Your task to perform on an android device: turn on the 12-hour format for clock Image 0: 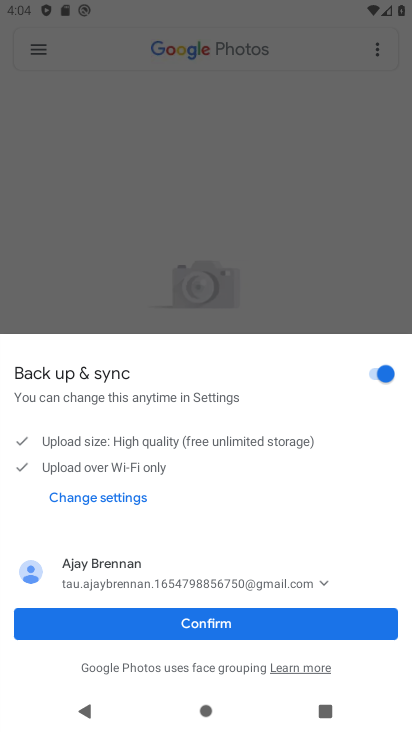
Step 0: press home button
Your task to perform on an android device: turn on the 12-hour format for clock Image 1: 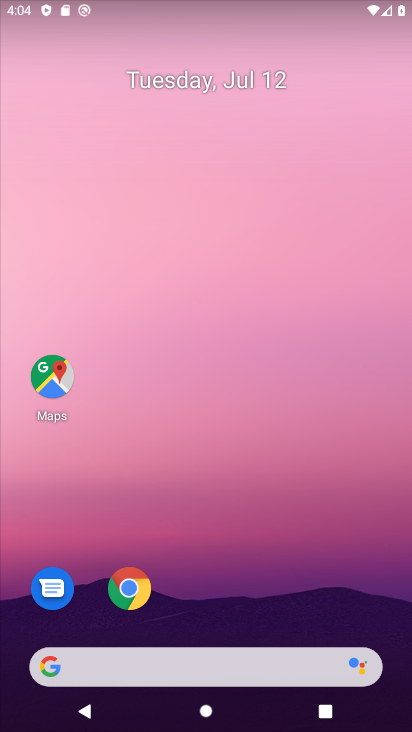
Step 1: drag from (197, 609) to (193, 176)
Your task to perform on an android device: turn on the 12-hour format for clock Image 2: 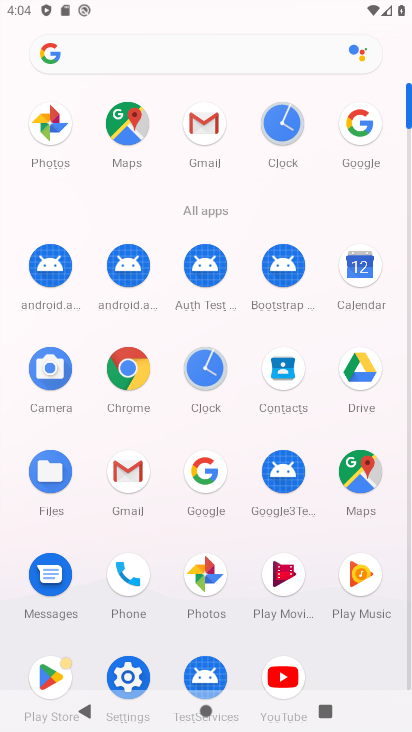
Step 2: click (272, 146)
Your task to perform on an android device: turn on the 12-hour format for clock Image 3: 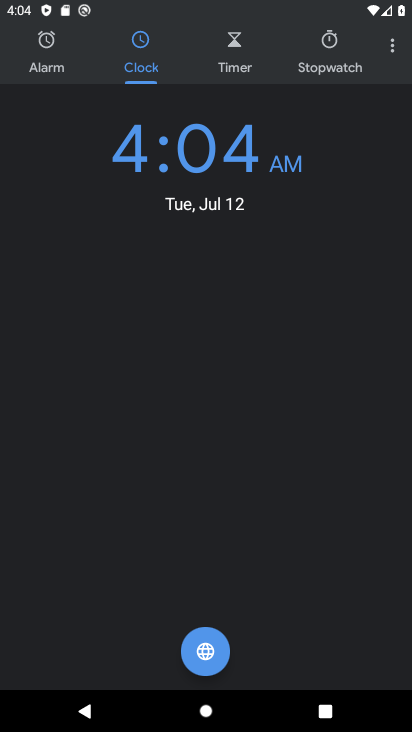
Step 3: click (389, 49)
Your task to perform on an android device: turn on the 12-hour format for clock Image 4: 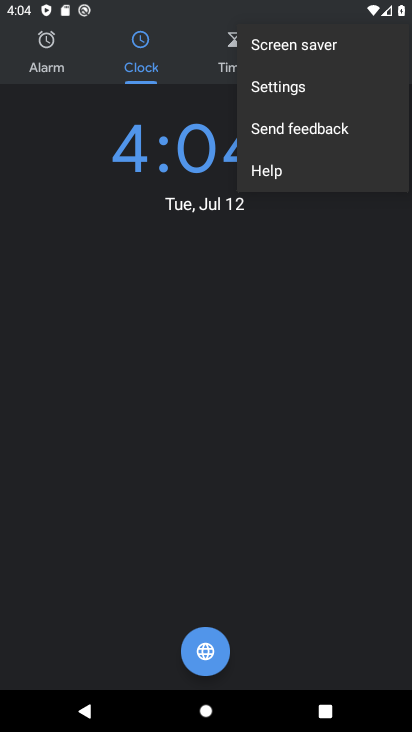
Step 4: click (318, 86)
Your task to perform on an android device: turn on the 12-hour format for clock Image 5: 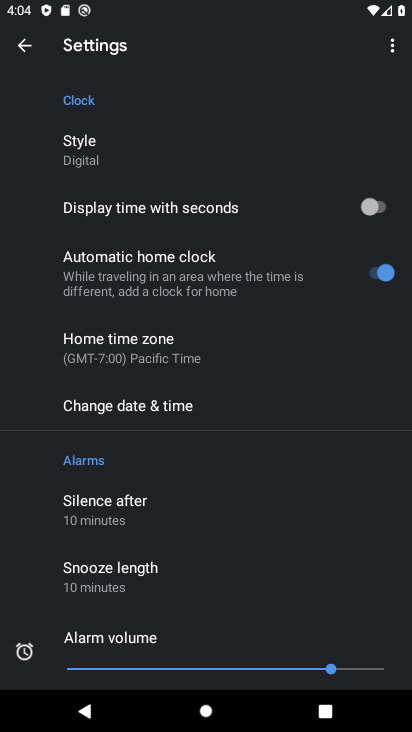
Step 5: click (220, 410)
Your task to perform on an android device: turn on the 12-hour format for clock Image 6: 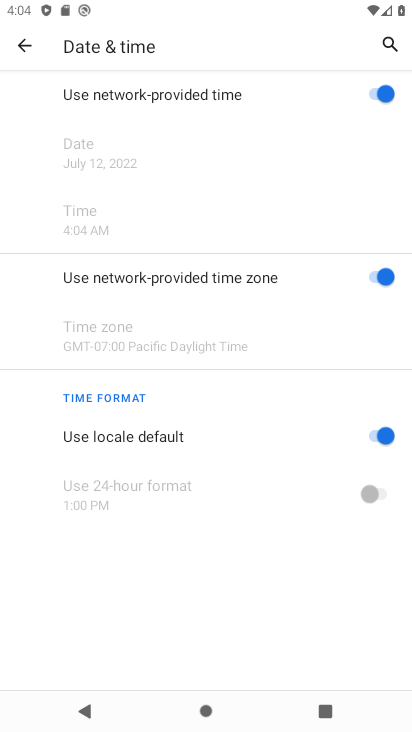
Step 6: task complete